Your task to perform on an android device: open chrome privacy settings Image 0: 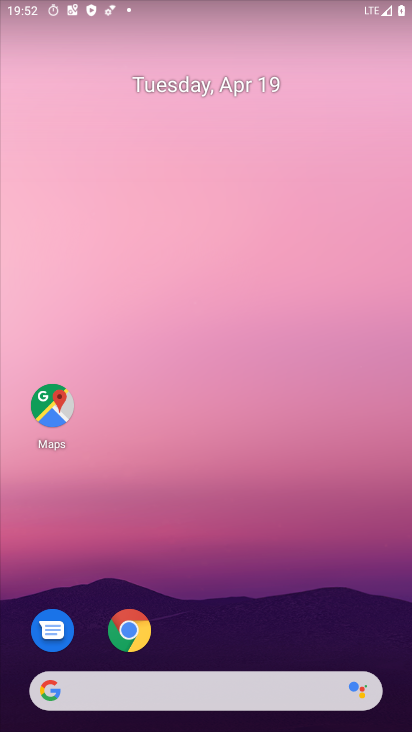
Step 0: drag from (225, 669) to (190, 51)
Your task to perform on an android device: open chrome privacy settings Image 1: 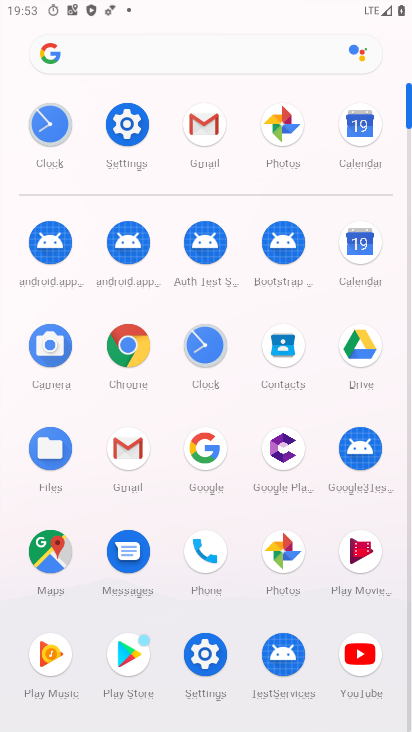
Step 1: click (134, 348)
Your task to perform on an android device: open chrome privacy settings Image 2: 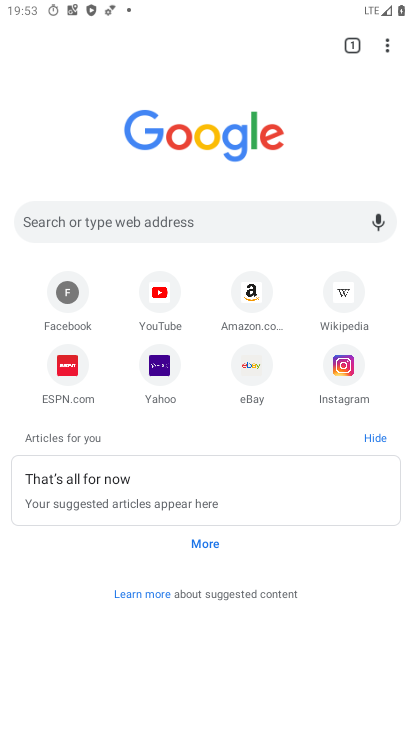
Step 2: click (386, 50)
Your task to perform on an android device: open chrome privacy settings Image 3: 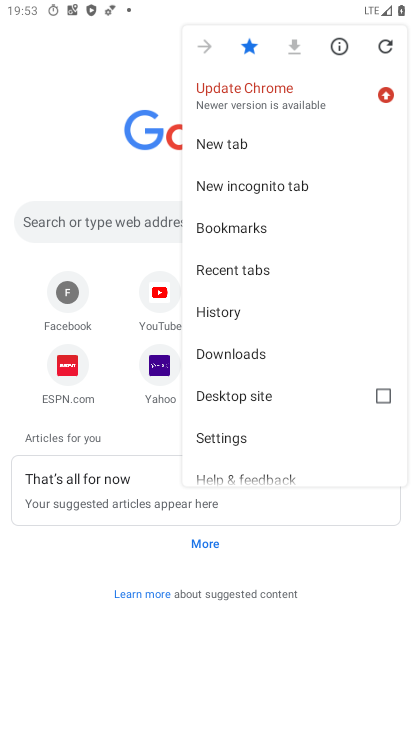
Step 3: click (213, 429)
Your task to perform on an android device: open chrome privacy settings Image 4: 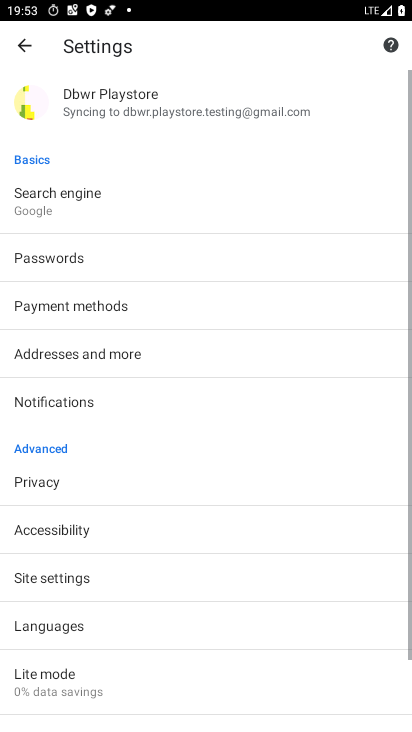
Step 4: click (88, 477)
Your task to perform on an android device: open chrome privacy settings Image 5: 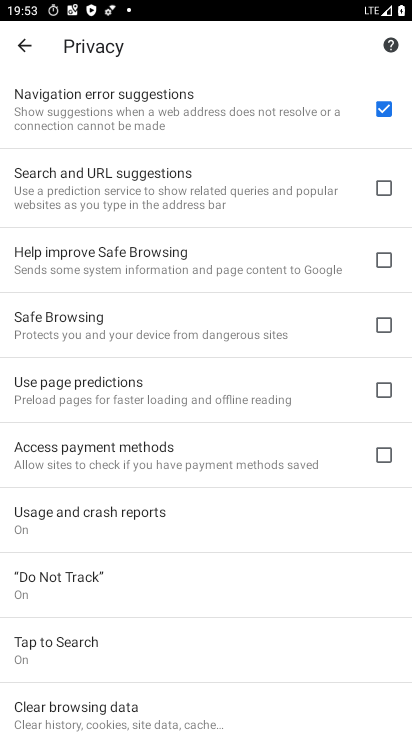
Step 5: task complete